Your task to perform on an android device: When is my next meeting? Image 0: 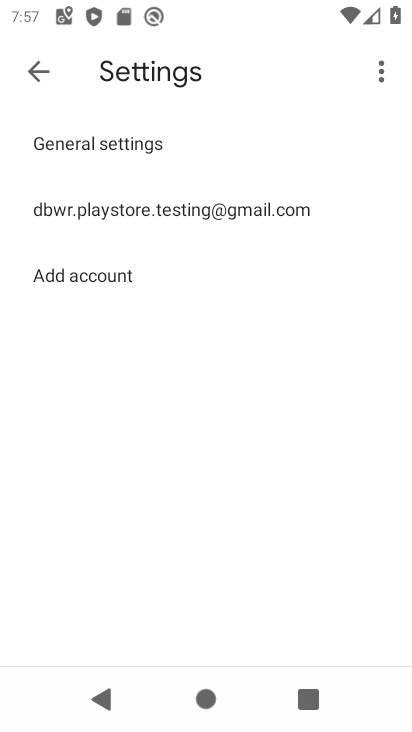
Step 0: press home button
Your task to perform on an android device: When is my next meeting? Image 1: 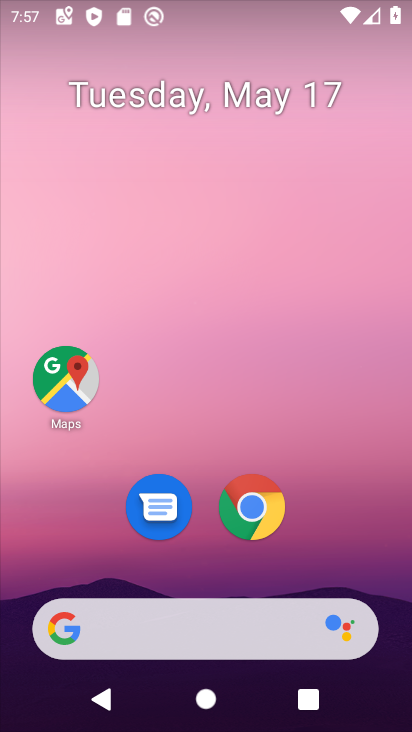
Step 1: drag from (337, 580) to (352, 22)
Your task to perform on an android device: When is my next meeting? Image 2: 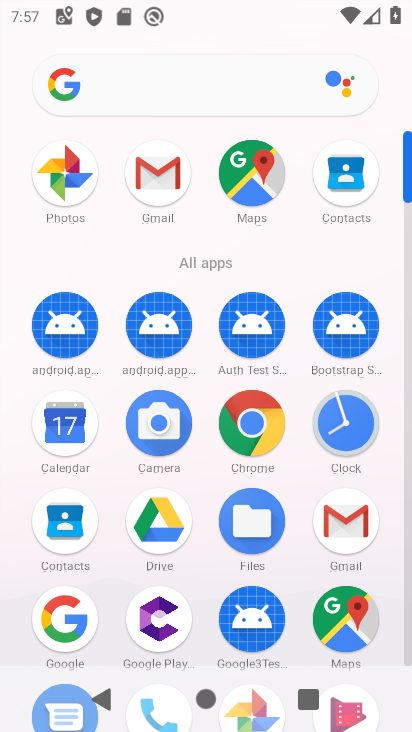
Step 2: click (66, 424)
Your task to perform on an android device: When is my next meeting? Image 3: 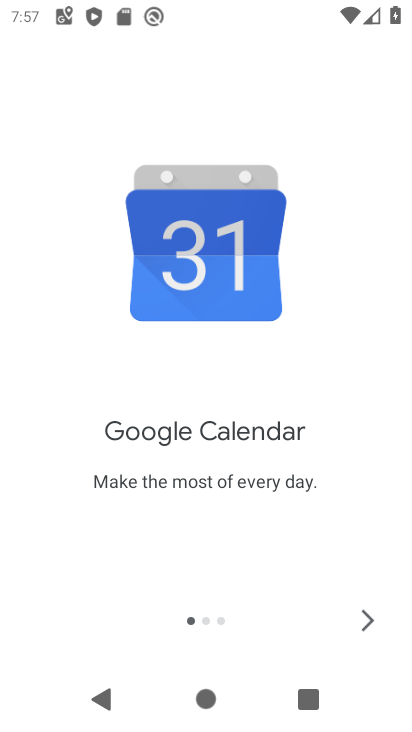
Step 3: click (372, 617)
Your task to perform on an android device: When is my next meeting? Image 4: 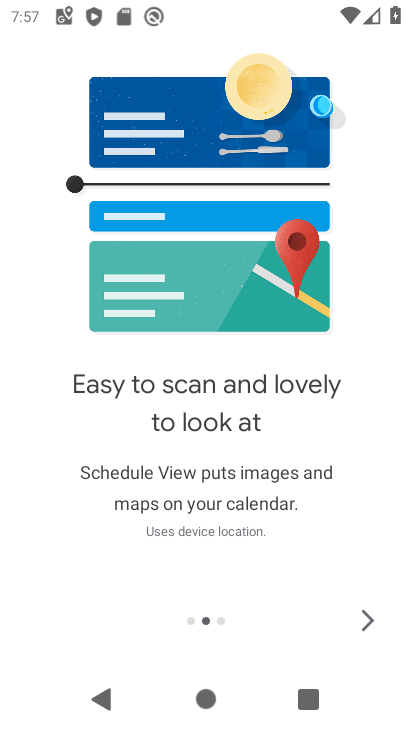
Step 4: click (372, 617)
Your task to perform on an android device: When is my next meeting? Image 5: 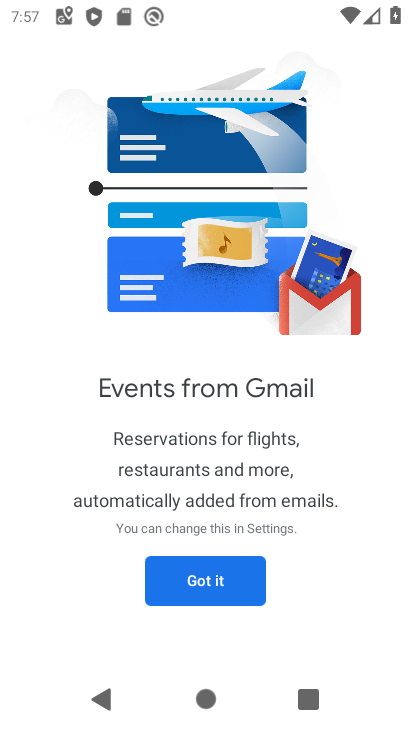
Step 5: click (215, 580)
Your task to perform on an android device: When is my next meeting? Image 6: 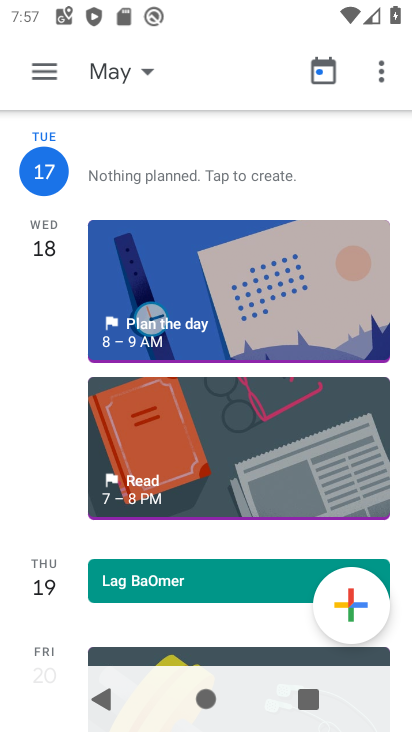
Step 6: click (49, 74)
Your task to perform on an android device: When is my next meeting? Image 7: 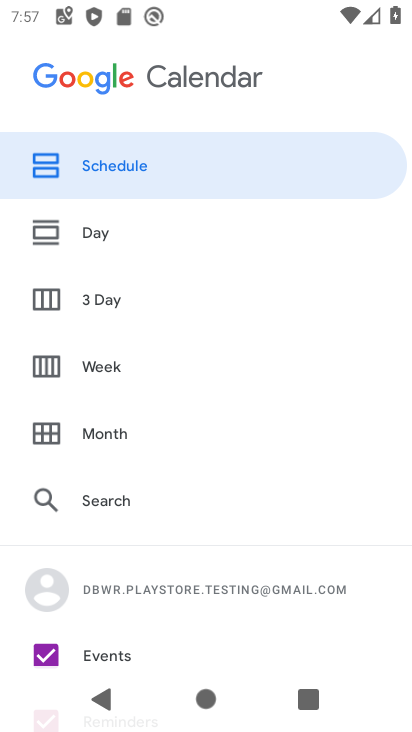
Step 7: drag from (141, 506) to (122, 205)
Your task to perform on an android device: When is my next meeting? Image 8: 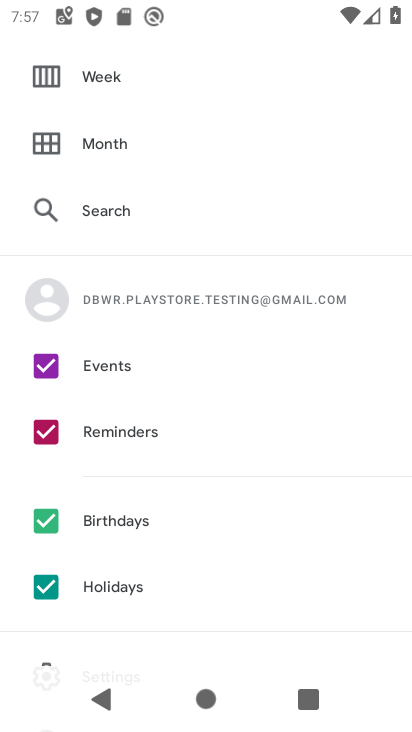
Step 8: click (50, 586)
Your task to perform on an android device: When is my next meeting? Image 9: 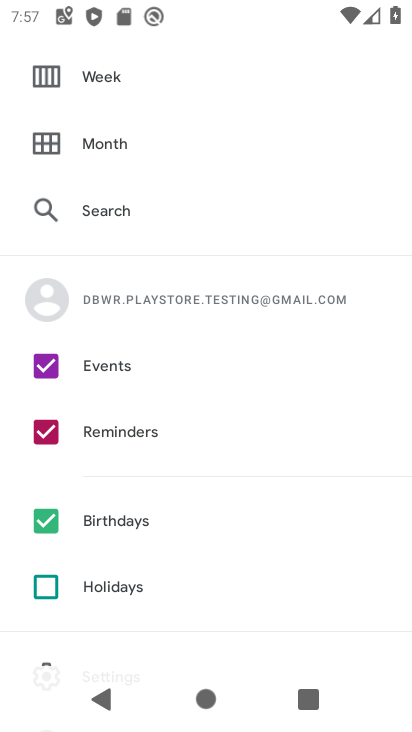
Step 9: click (42, 522)
Your task to perform on an android device: When is my next meeting? Image 10: 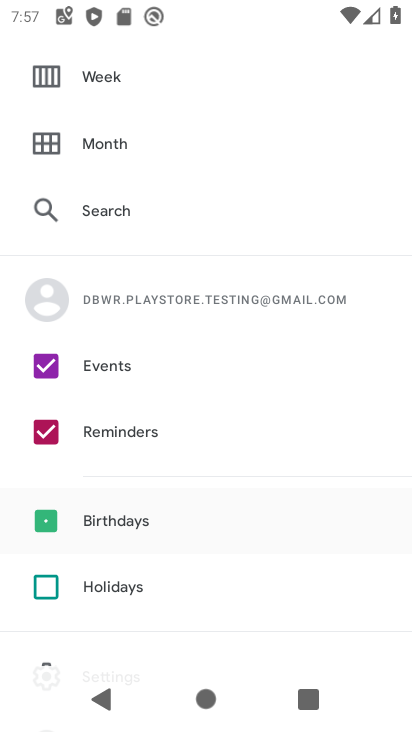
Step 10: click (46, 440)
Your task to perform on an android device: When is my next meeting? Image 11: 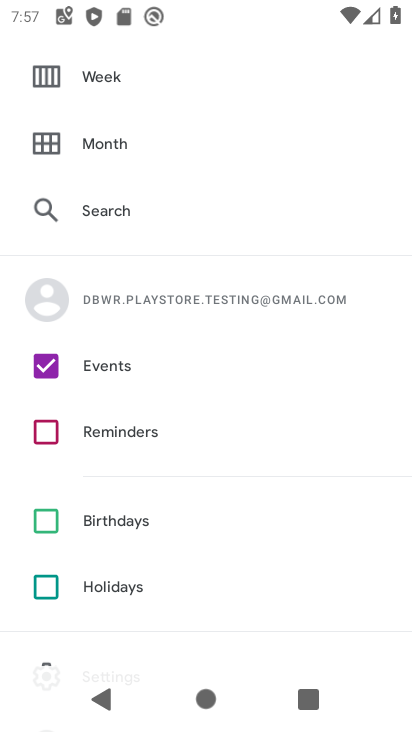
Step 11: drag from (182, 140) to (180, 505)
Your task to perform on an android device: When is my next meeting? Image 12: 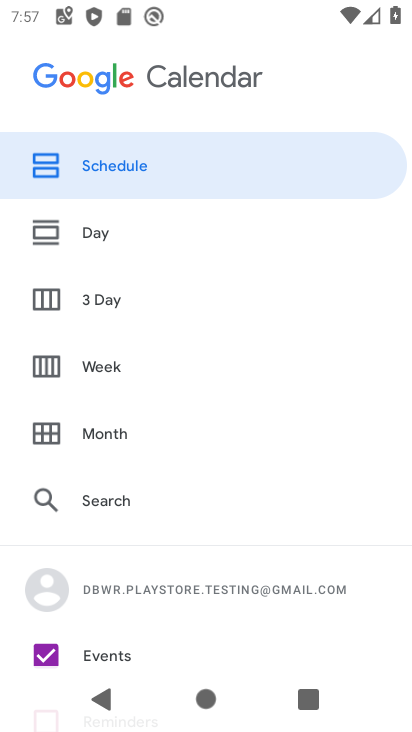
Step 12: click (41, 160)
Your task to perform on an android device: When is my next meeting? Image 13: 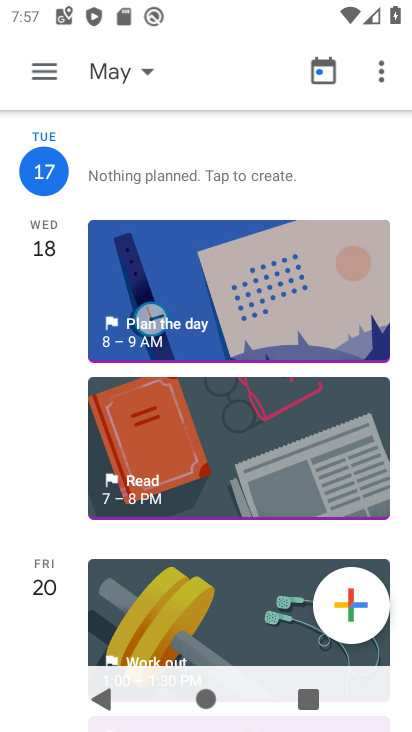
Step 13: drag from (199, 427) to (193, 188)
Your task to perform on an android device: When is my next meeting? Image 14: 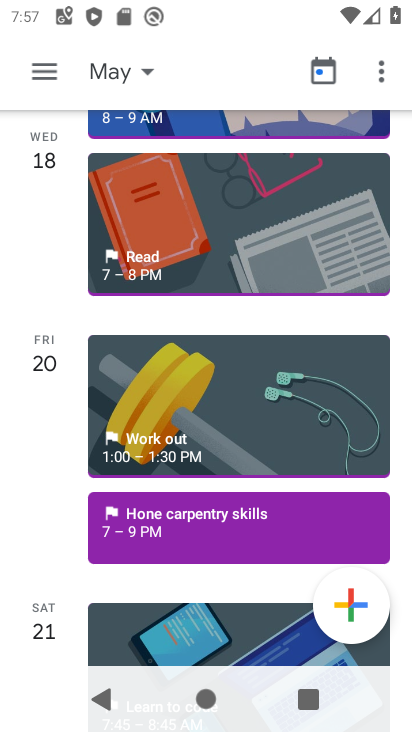
Step 14: drag from (182, 452) to (192, 228)
Your task to perform on an android device: When is my next meeting? Image 15: 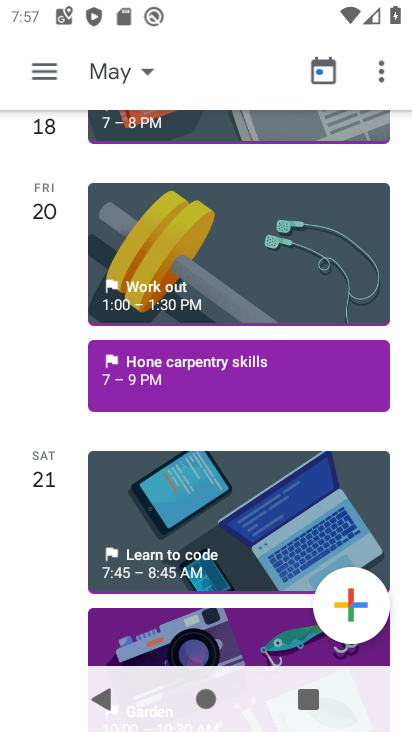
Step 15: click (206, 360)
Your task to perform on an android device: When is my next meeting? Image 16: 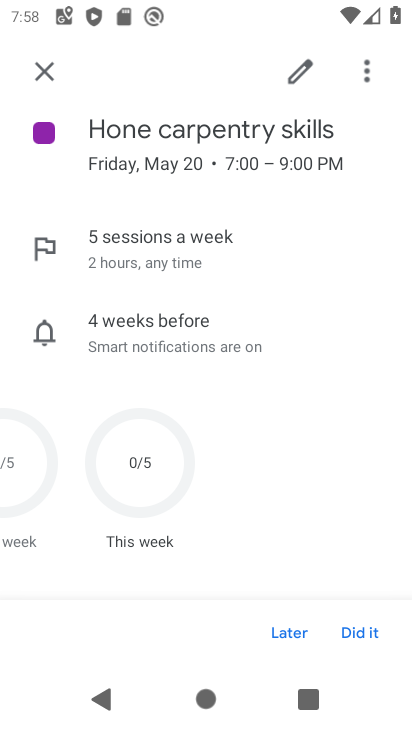
Step 16: task complete